Your task to perform on an android device: move a message to another label in the gmail app Image 0: 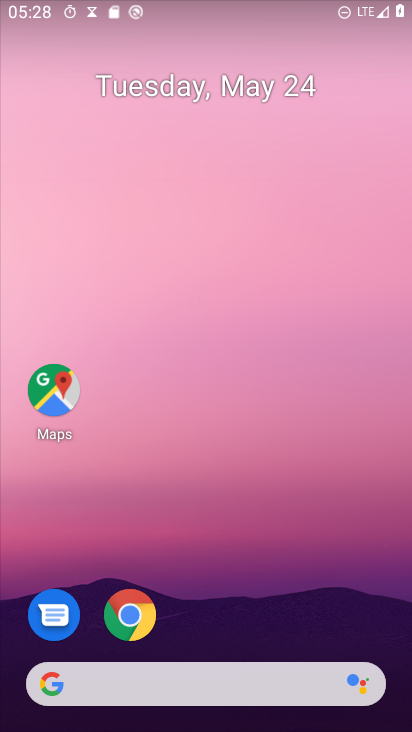
Step 0: drag from (234, 444) to (240, 105)
Your task to perform on an android device: move a message to another label in the gmail app Image 1: 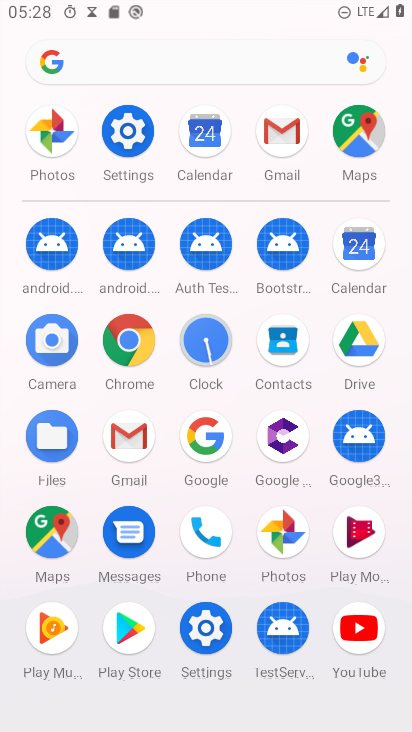
Step 1: click (294, 122)
Your task to perform on an android device: move a message to another label in the gmail app Image 2: 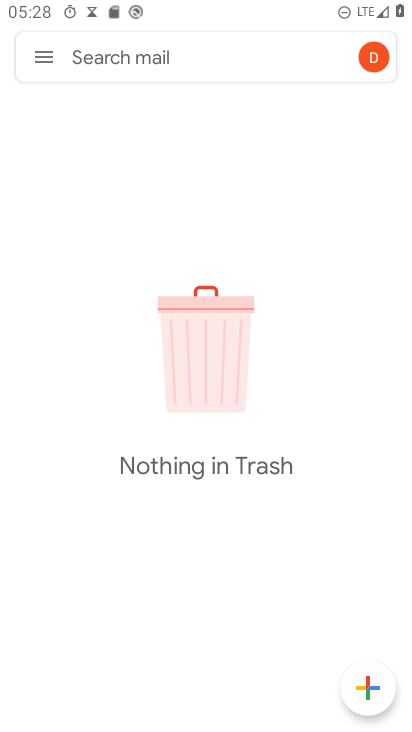
Step 2: click (28, 51)
Your task to perform on an android device: move a message to another label in the gmail app Image 3: 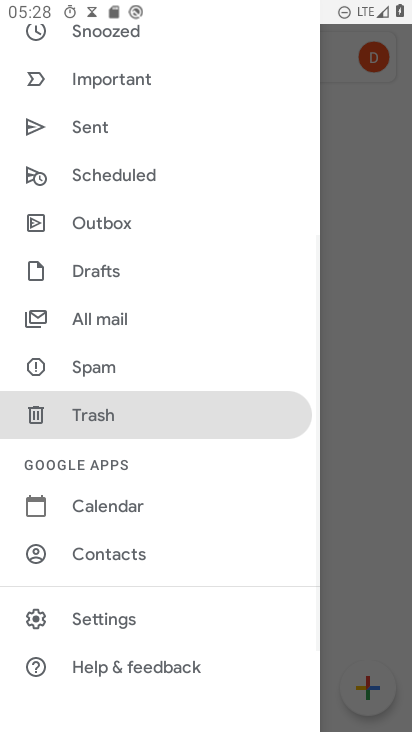
Step 3: click (100, 315)
Your task to perform on an android device: move a message to another label in the gmail app Image 4: 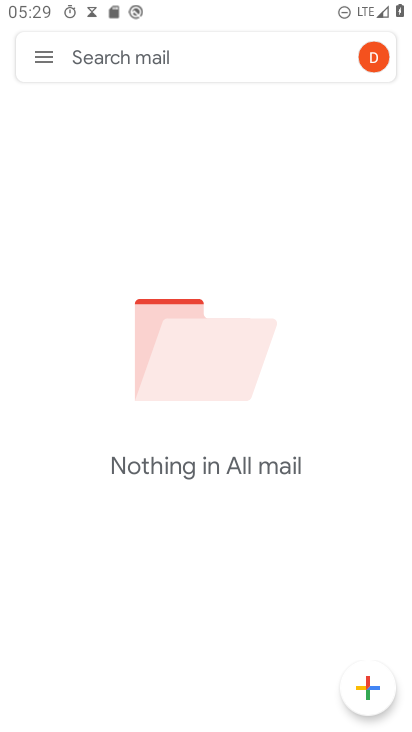
Step 4: task complete